Your task to perform on an android device: star an email in the gmail app Image 0: 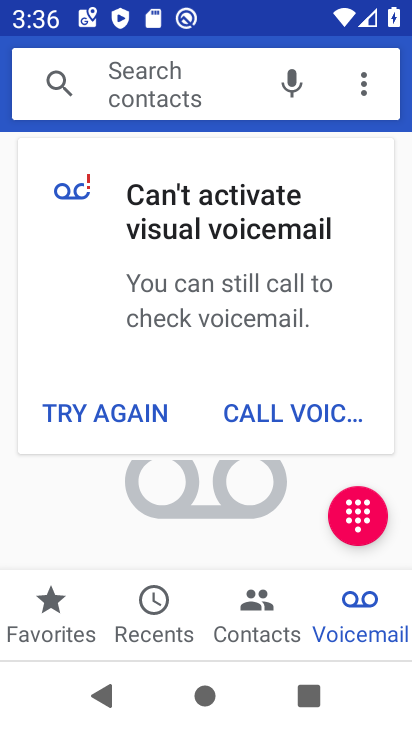
Step 0: press home button
Your task to perform on an android device: star an email in the gmail app Image 1: 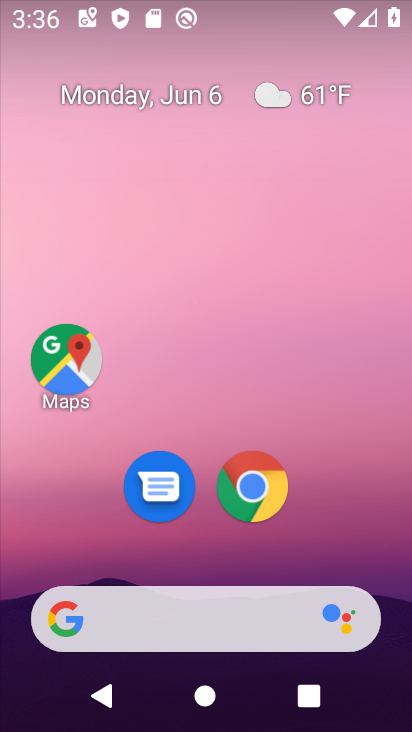
Step 1: drag from (327, 428) to (307, 140)
Your task to perform on an android device: star an email in the gmail app Image 2: 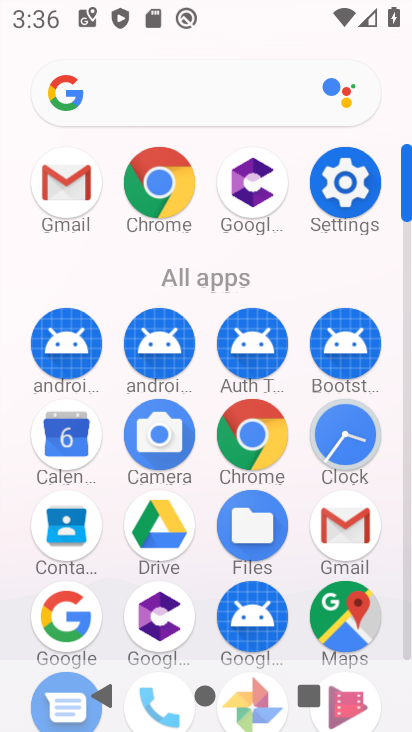
Step 2: click (69, 190)
Your task to perform on an android device: star an email in the gmail app Image 3: 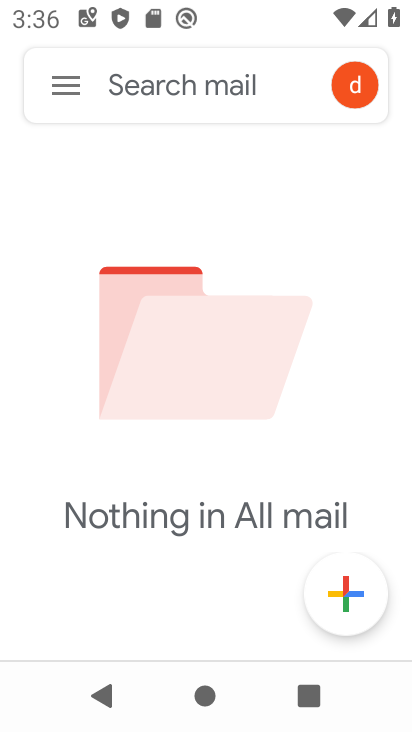
Step 3: click (71, 89)
Your task to perform on an android device: star an email in the gmail app Image 4: 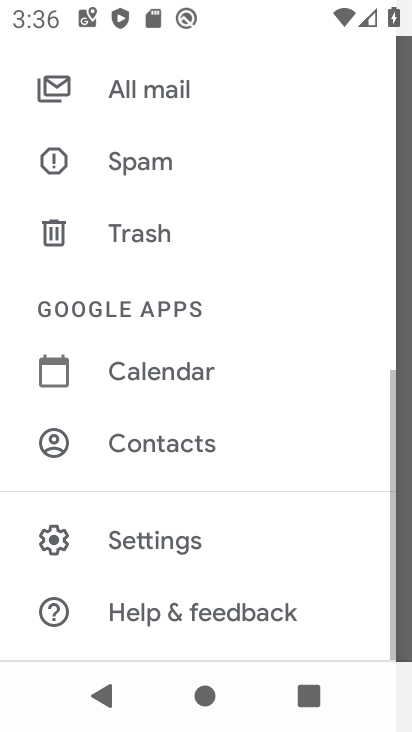
Step 4: drag from (230, 513) to (279, 603)
Your task to perform on an android device: star an email in the gmail app Image 5: 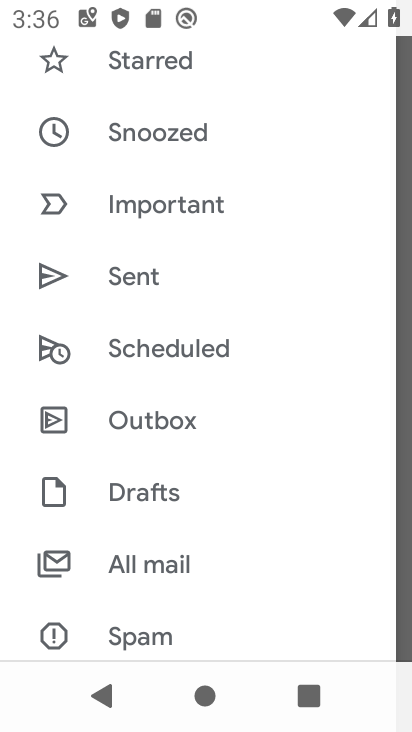
Step 5: drag from (228, 300) to (230, 509)
Your task to perform on an android device: star an email in the gmail app Image 6: 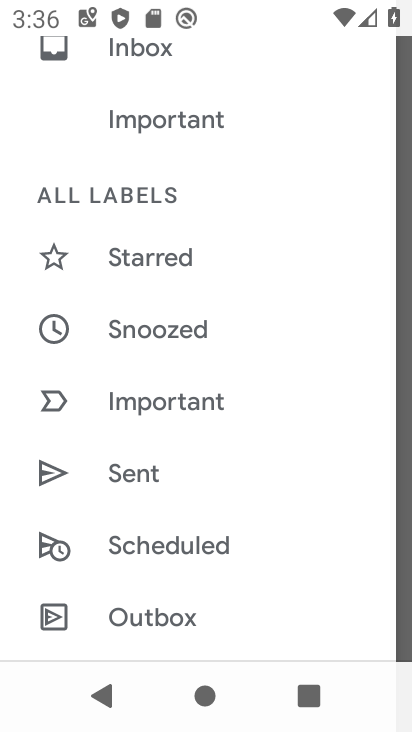
Step 6: drag from (219, 493) to (268, 114)
Your task to perform on an android device: star an email in the gmail app Image 7: 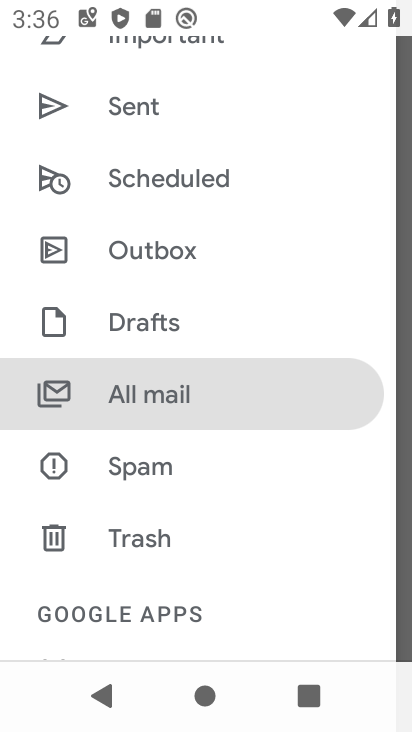
Step 7: click (178, 385)
Your task to perform on an android device: star an email in the gmail app Image 8: 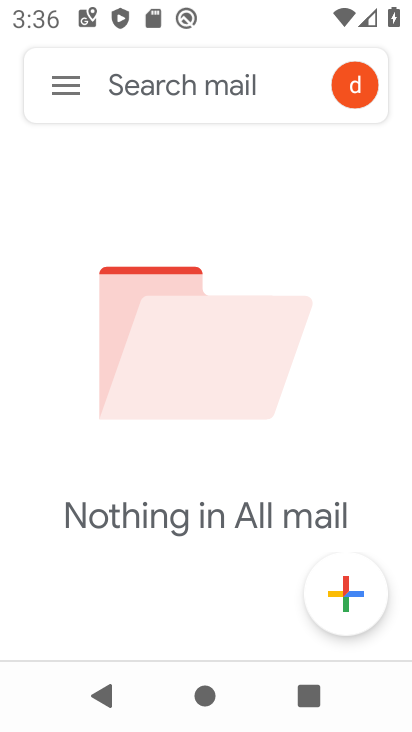
Step 8: task complete